Your task to perform on an android device: Is it going to rain this weekend? Image 0: 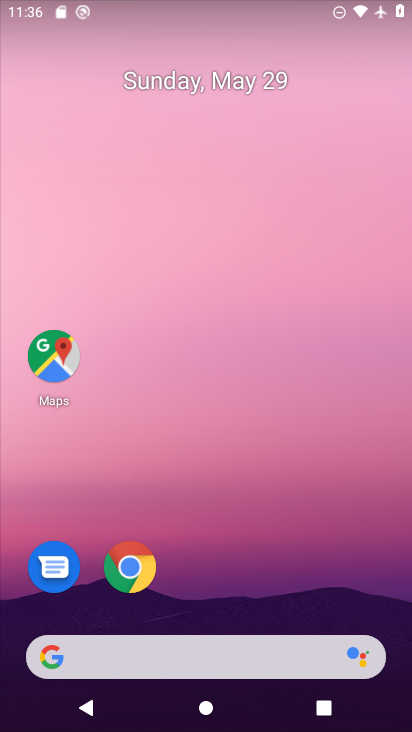
Step 0: click (162, 661)
Your task to perform on an android device: Is it going to rain this weekend? Image 1: 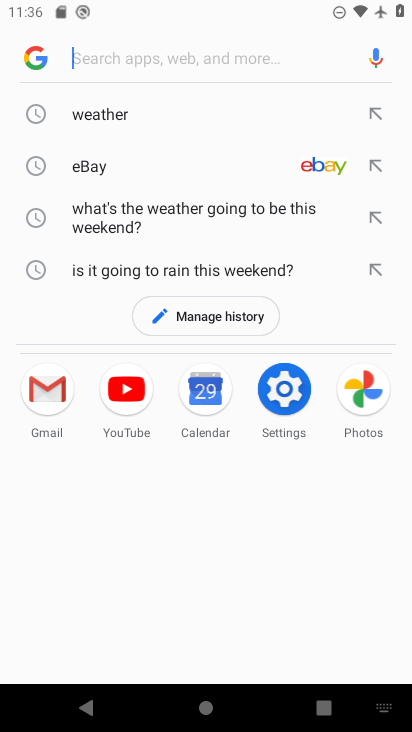
Step 1: click (115, 111)
Your task to perform on an android device: Is it going to rain this weekend? Image 2: 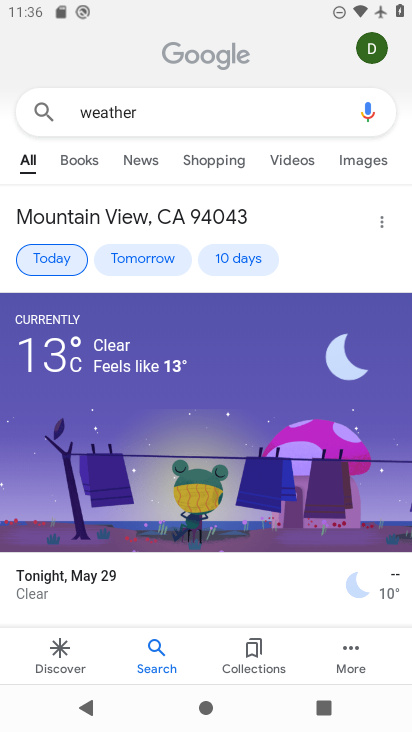
Step 2: click (237, 259)
Your task to perform on an android device: Is it going to rain this weekend? Image 3: 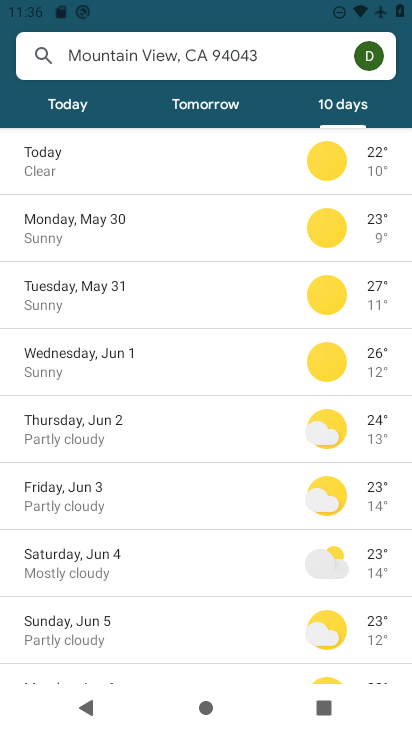
Step 3: task complete